Your task to perform on an android device: Go to accessibility settings Image 0: 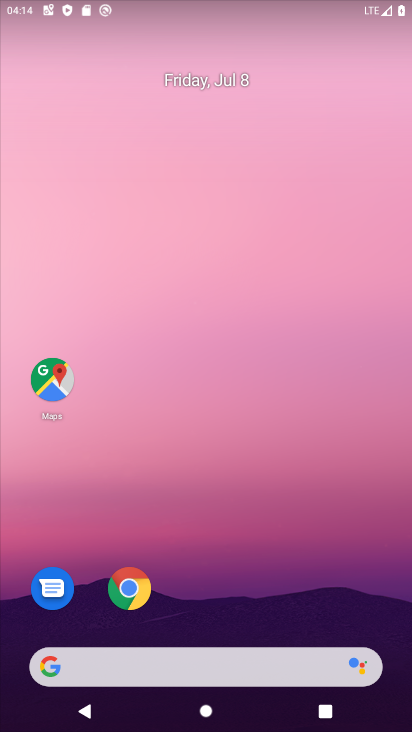
Step 0: drag from (212, 354) to (232, 173)
Your task to perform on an android device: Go to accessibility settings Image 1: 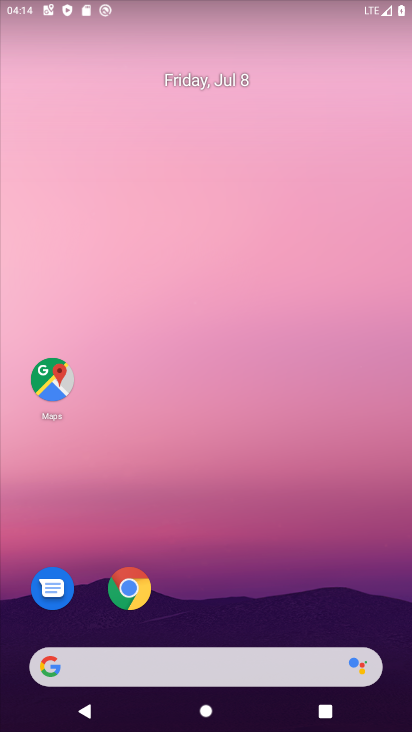
Step 1: drag from (200, 585) to (196, 150)
Your task to perform on an android device: Go to accessibility settings Image 2: 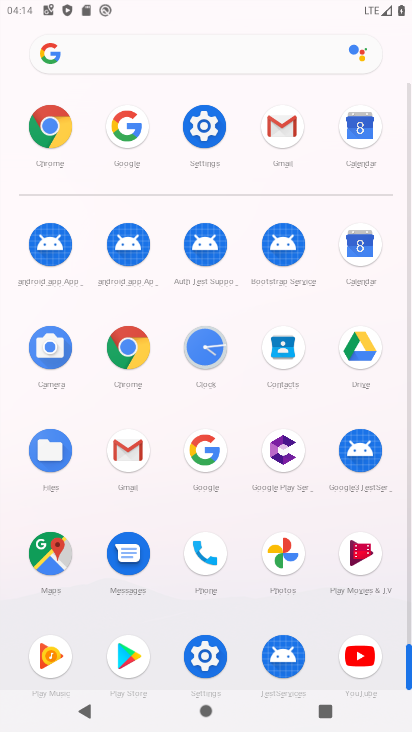
Step 2: click (205, 126)
Your task to perform on an android device: Go to accessibility settings Image 3: 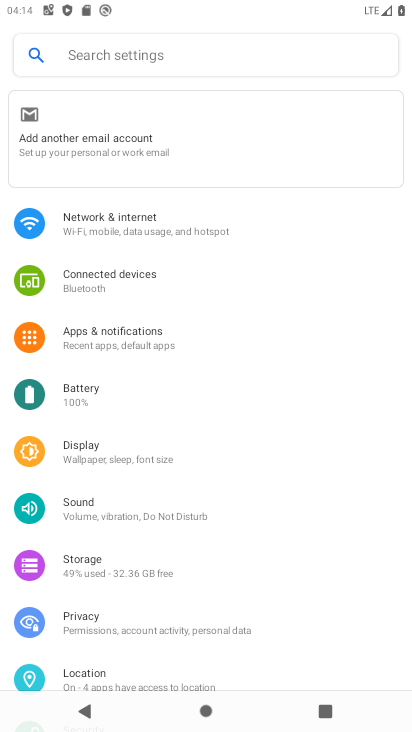
Step 3: drag from (123, 554) to (148, 88)
Your task to perform on an android device: Go to accessibility settings Image 4: 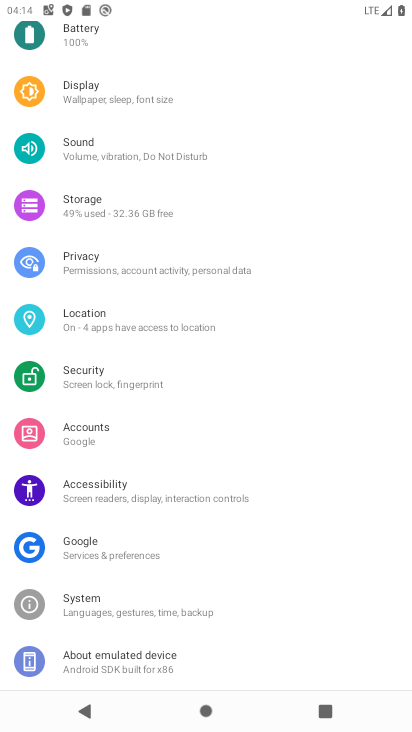
Step 4: click (121, 491)
Your task to perform on an android device: Go to accessibility settings Image 5: 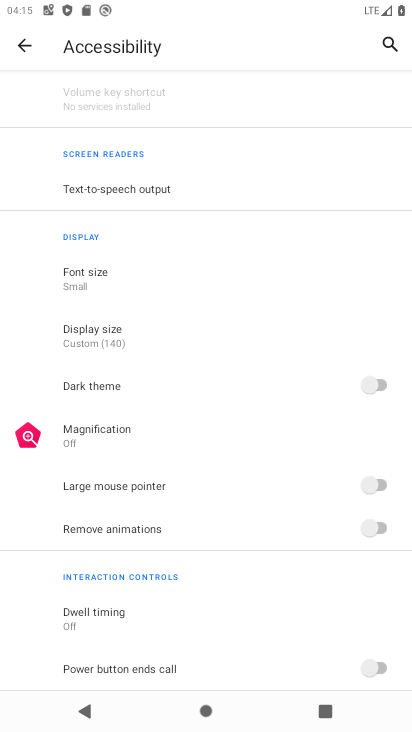
Step 5: task complete